Your task to perform on an android device: turn on sleep mode Image 0: 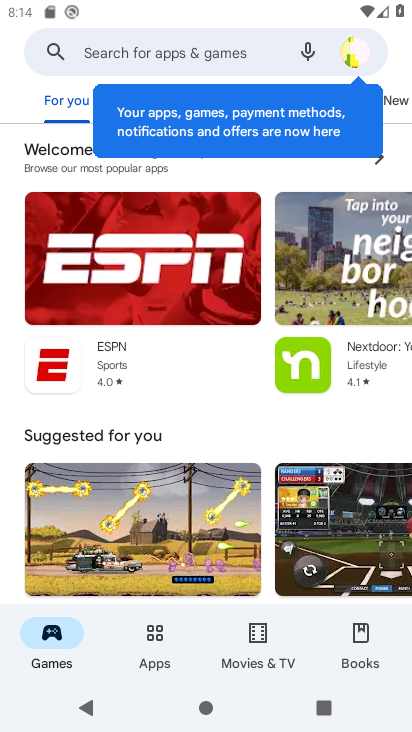
Step 0: press home button
Your task to perform on an android device: turn on sleep mode Image 1: 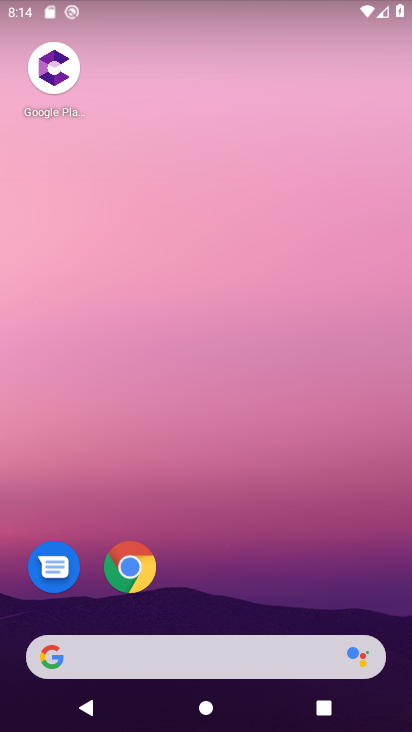
Step 1: drag from (163, 648) to (250, 152)
Your task to perform on an android device: turn on sleep mode Image 2: 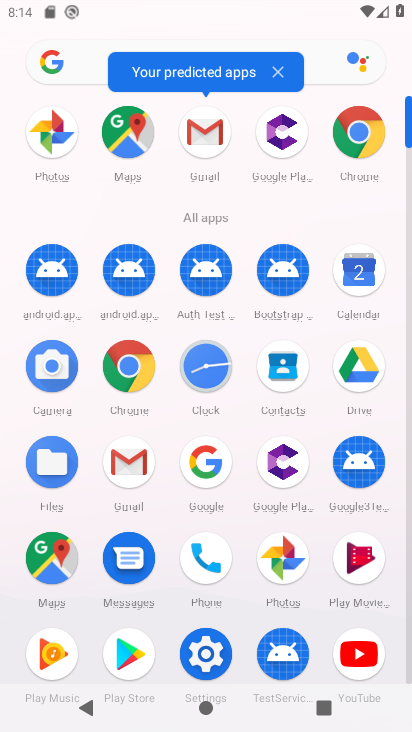
Step 2: click (226, 654)
Your task to perform on an android device: turn on sleep mode Image 3: 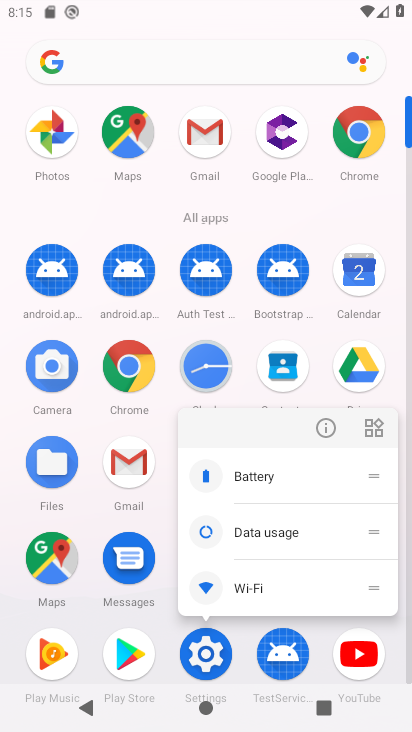
Step 3: click (195, 648)
Your task to perform on an android device: turn on sleep mode Image 4: 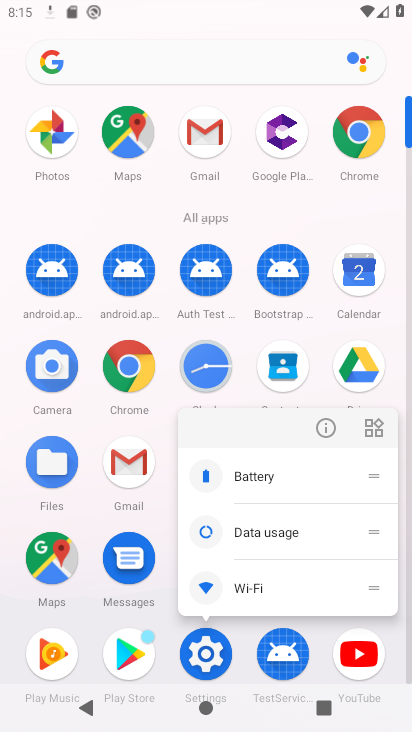
Step 4: click (200, 644)
Your task to perform on an android device: turn on sleep mode Image 5: 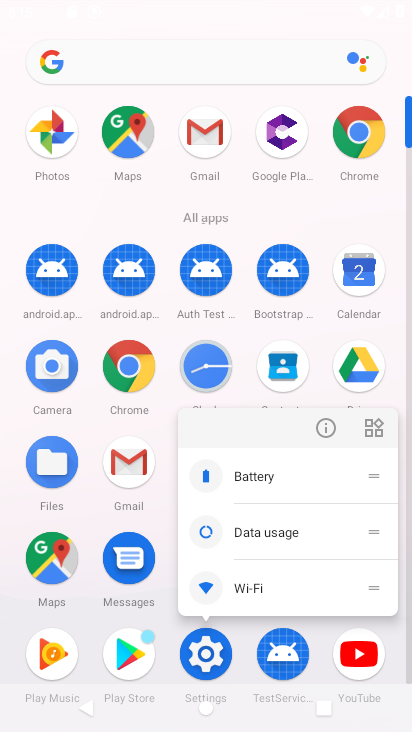
Step 5: click (212, 658)
Your task to perform on an android device: turn on sleep mode Image 6: 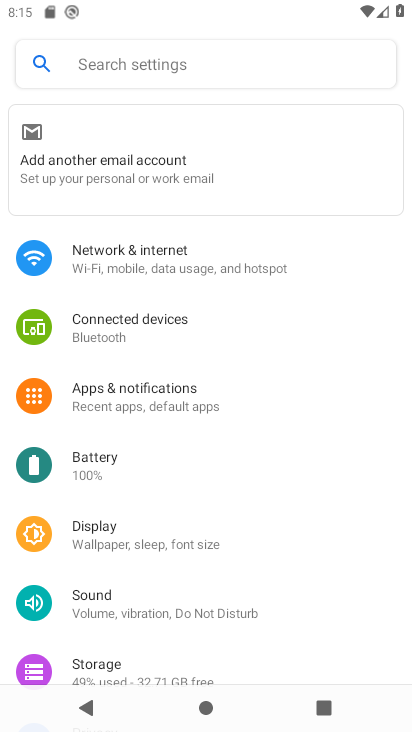
Step 6: click (215, 549)
Your task to perform on an android device: turn on sleep mode Image 7: 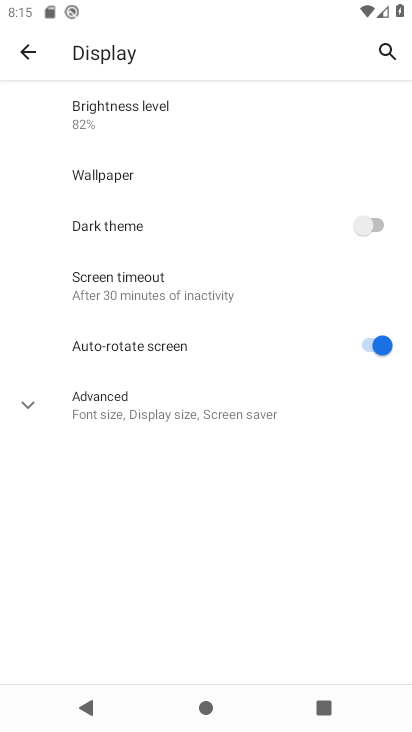
Step 7: task complete